Your task to perform on an android device: Open internet settings Image 0: 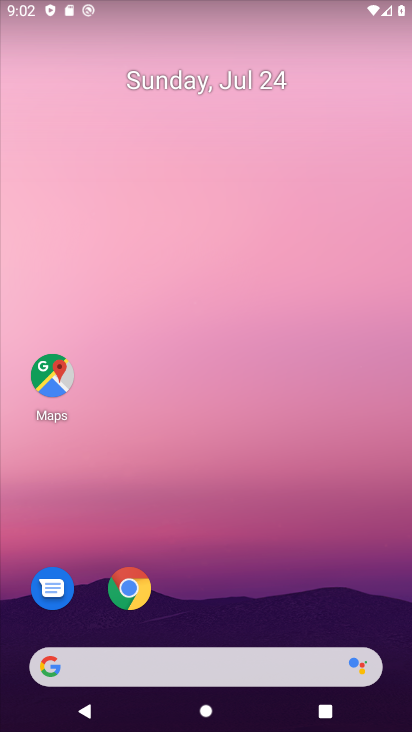
Step 0: drag from (198, 683) to (240, 133)
Your task to perform on an android device: Open internet settings Image 1: 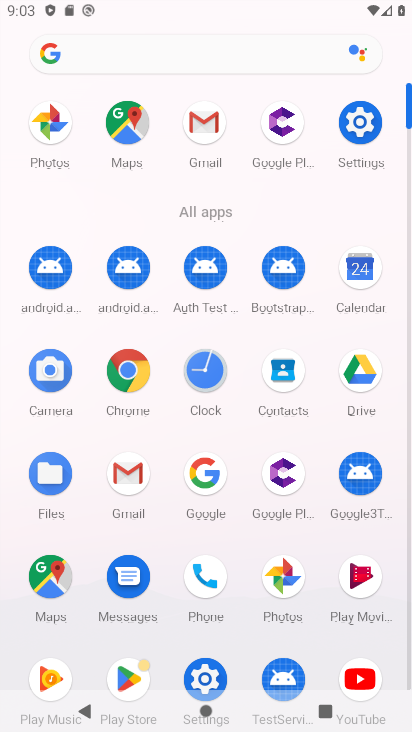
Step 1: click (348, 122)
Your task to perform on an android device: Open internet settings Image 2: 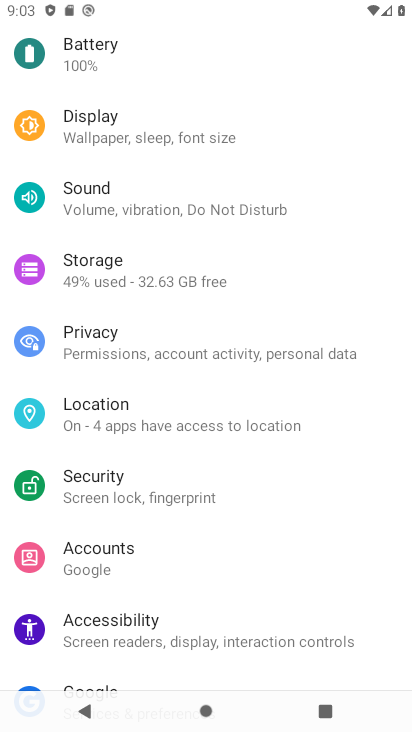
Step 2: drag from (279, 177) to (322, 449)
Your task to perform on an android device: Open internet settings Image 3: 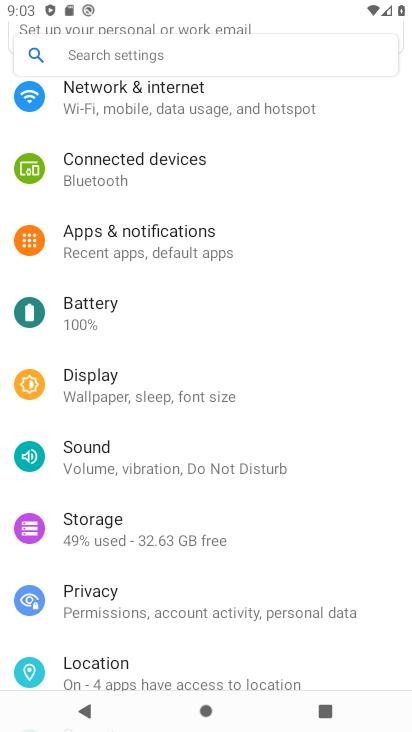
Step 3: click (205, 98)
Your task to perform on an android device: Open internet settings Image 4: 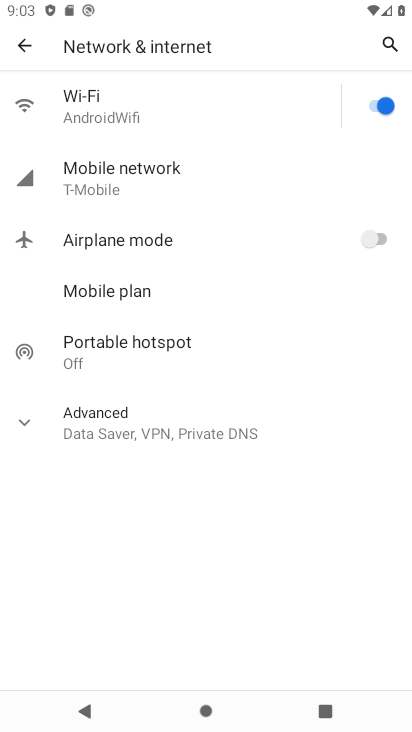
Step 4: click (226, 90)
Your task to perform on an android device: Open internet settings Image 5: 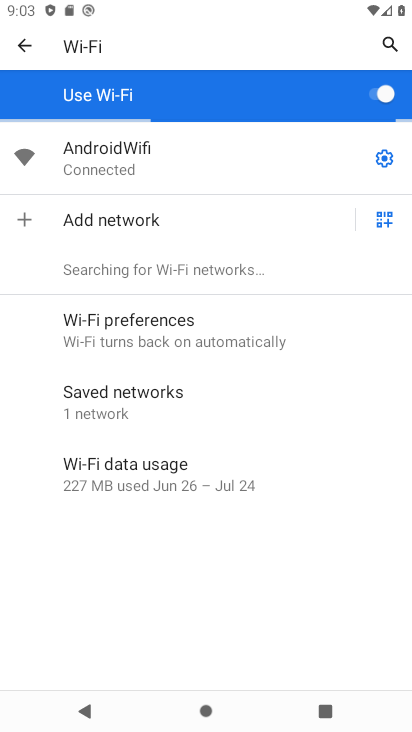
Step 5: task complete